Your task to perform on an android device: check google app version Image 0: 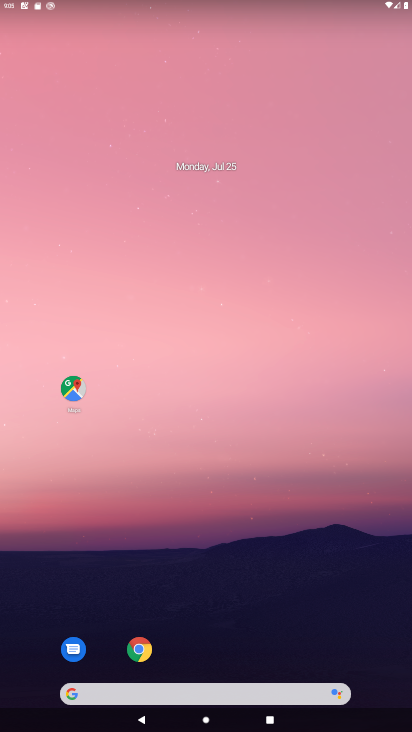
Step 0: drag from (218, 680) to (120, 53)
Your task to perform on an android device: check google app version Image 1: 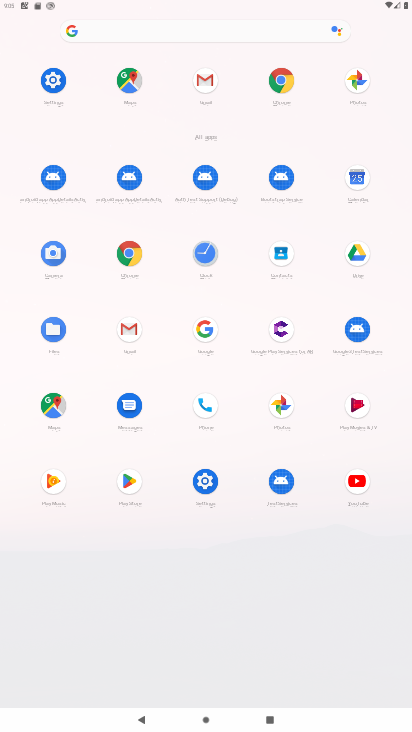
Step 1: click (203, 334)
Your task to perform on an android device: check google app version Image 2: 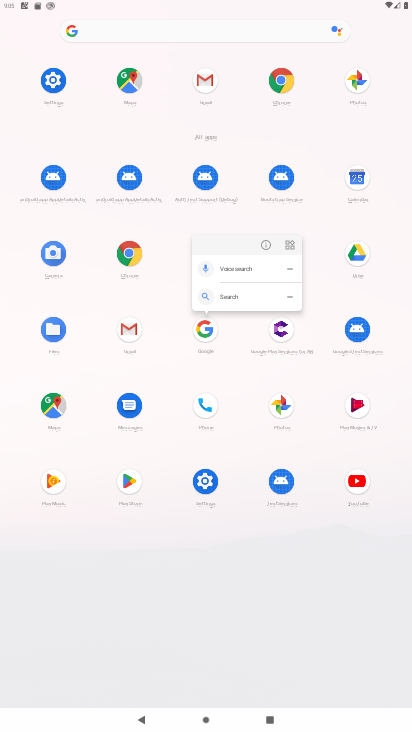
Step 2: click (260, 239)
Your task to perform on an android device: check google app version Image 3: 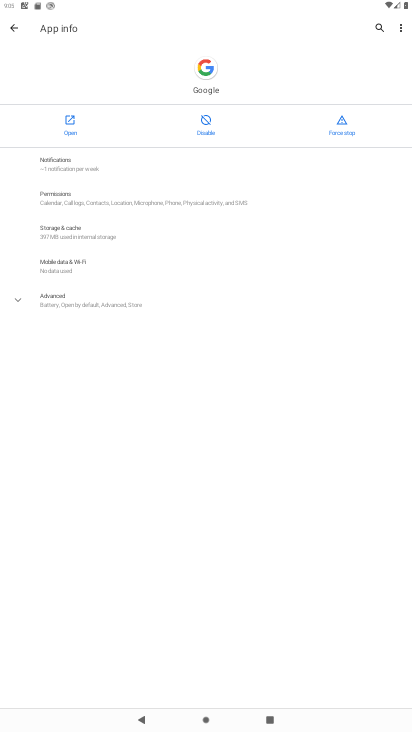
Step 3: click (65, 295)
Your task to perform on an android device: check google app version Image 4: 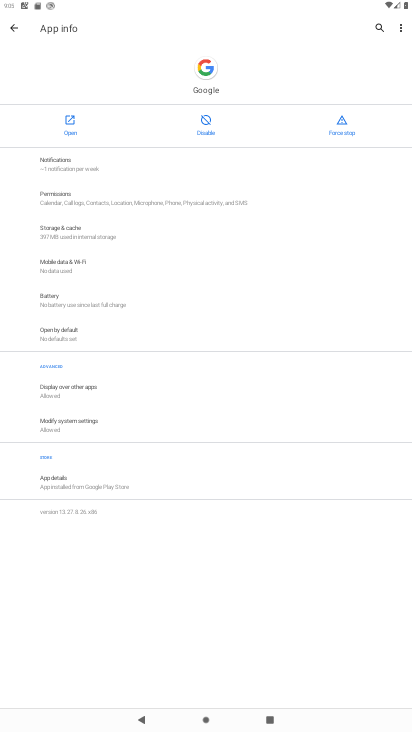
Step 4: task complete